Your task to perform on an android device: Play the last video I watched on Youtube Image 0: 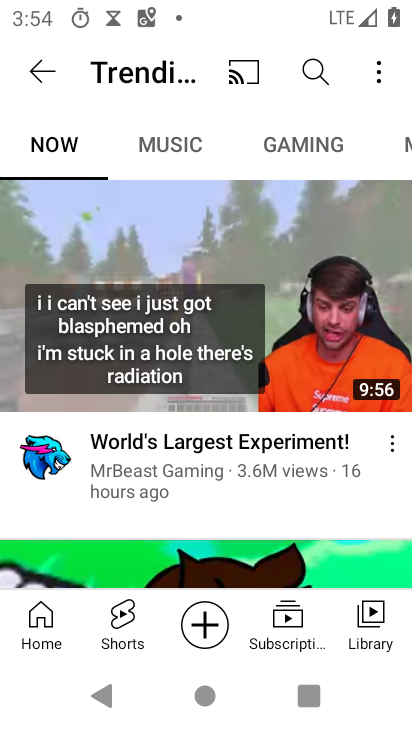
Step 0: click (371, 627)
Your task to perform on an android device: Play the last video I watched on Youtube Image 1: 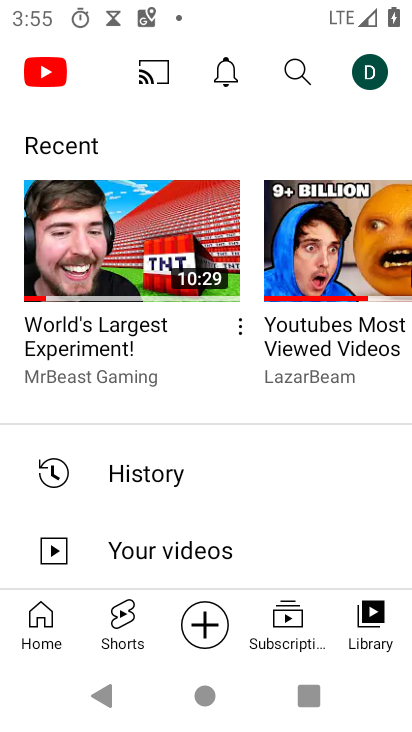
Step 1: click (95, 244)
Your task to perform on an android device: Play the last video I watched on Youtube Image 2: 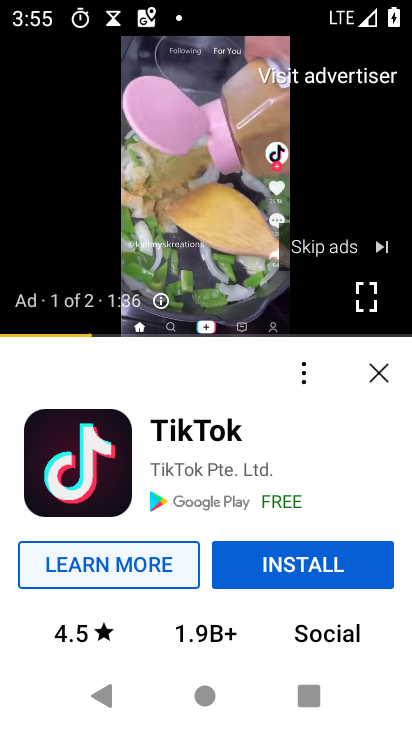
Step 2: task complete